Your task to perform on an android device: turn off location history Image 0: 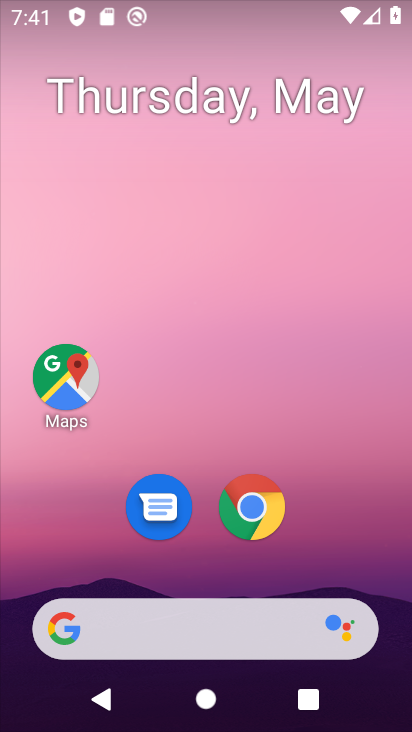
Step 0: drag from (286, 649) to (219, 382)
Your task to perform on an android device: turn off location history Image 1: 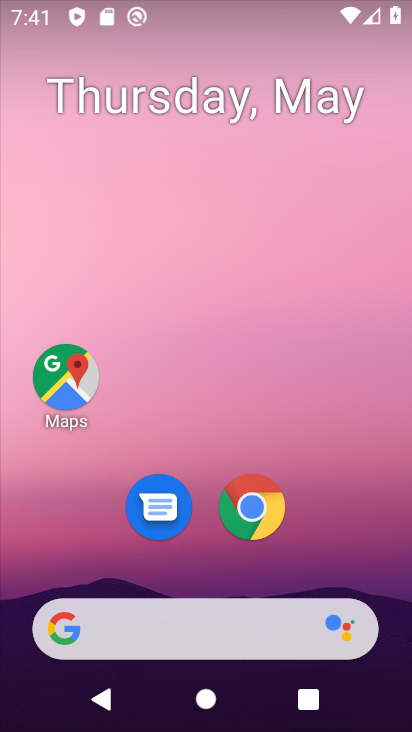
Step 1: drag from (216, 654) to (168, 267)
Your task to perform on an android device: turn off location history Image 2: 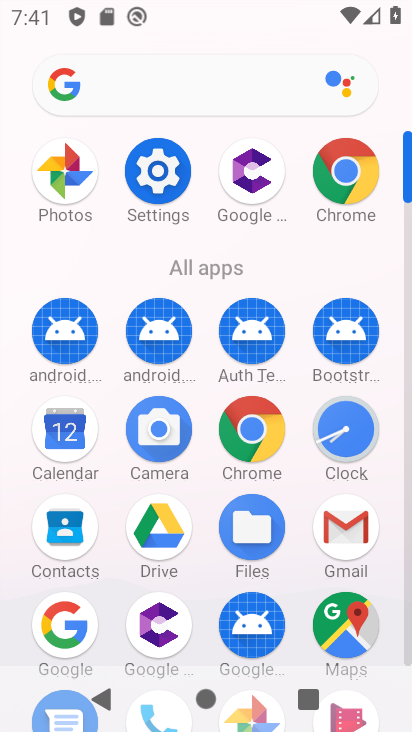
Step 2: click (152, 186)
Your task to perform on an android device: turn off location history Image 3: 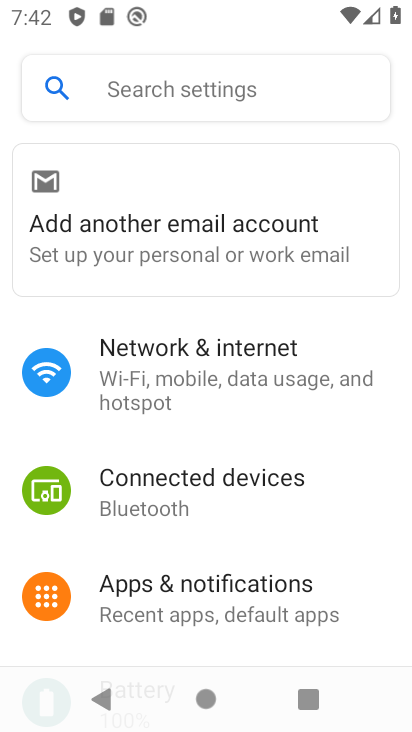
Step 3: click (163, 108)
Your task to perform on an android device: turn off location history Image 4: 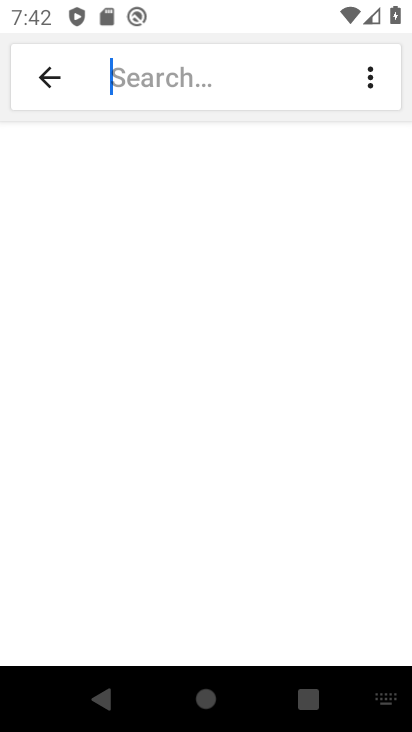
Step 4: click (381, 695)
Your task to perform on an android device: turn off location history Image 5: 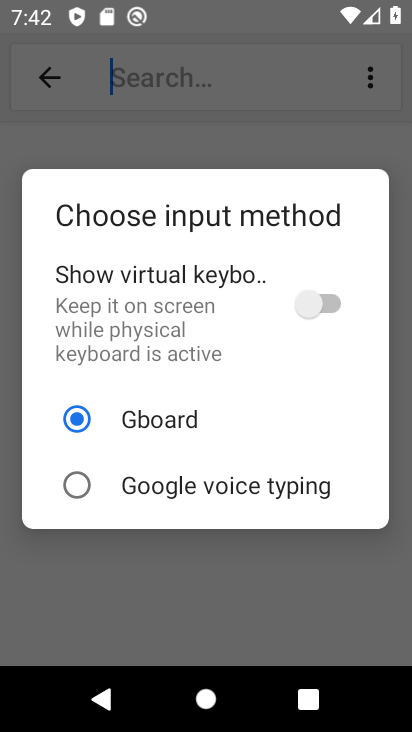
Step 5: click (318, 300)
Your task to perform on an android device: turn off location history Image 6: 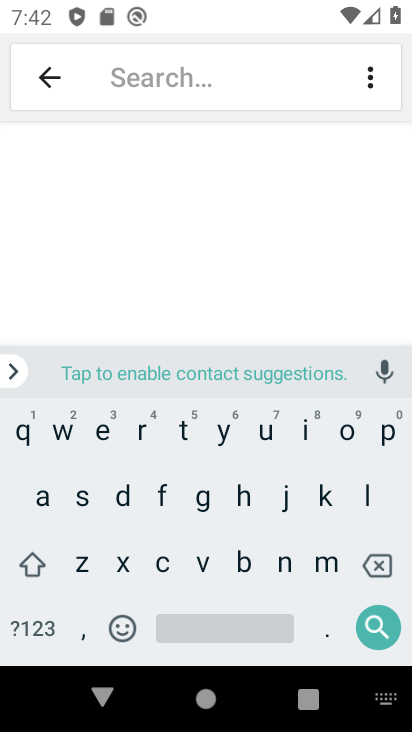
Step 6: click (366, 490)
Your task to perform on an android device: turn off location history Image 7: 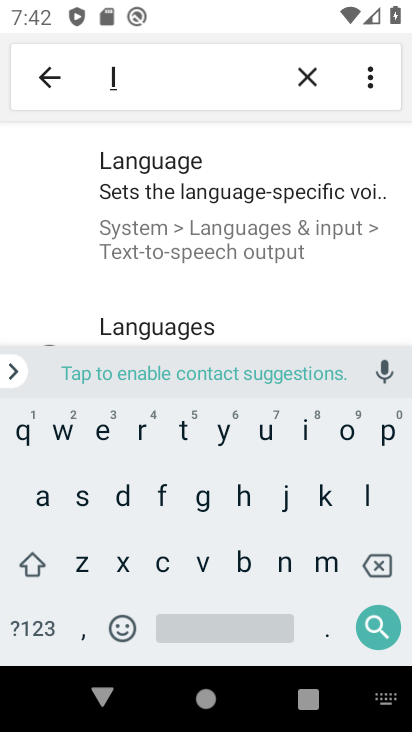
Step 7: click (337, 432)
Your task to perform on an android device: turn off location history Image 8: 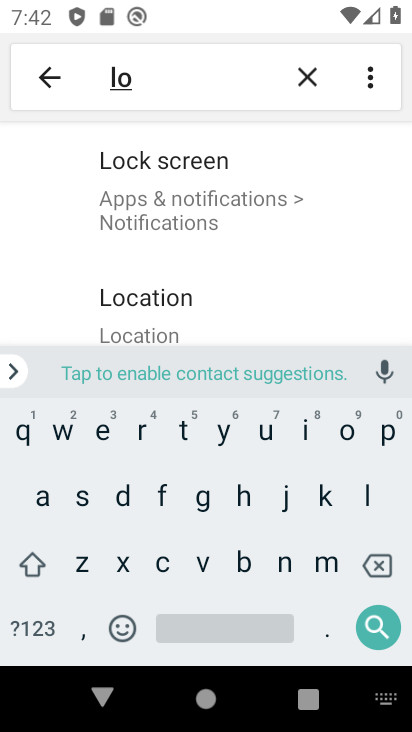
Step 8: click (136, 330)
Your task to perform on an android device: turn off location history Image 9: 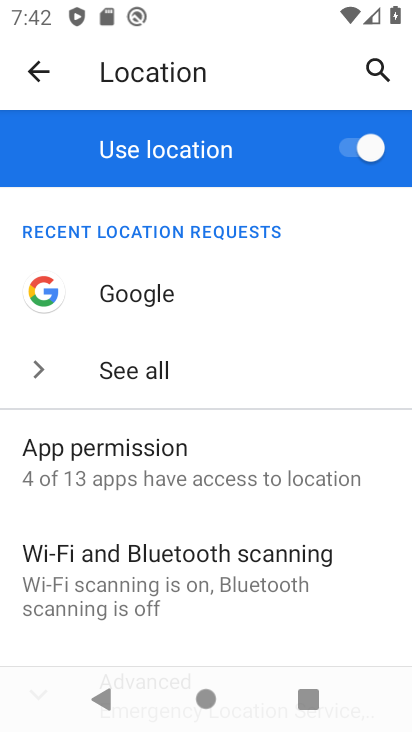
Step 9: drag from (113, 537) to (130, 336)
Your task to perform on an android device: turn off location history Image 10: 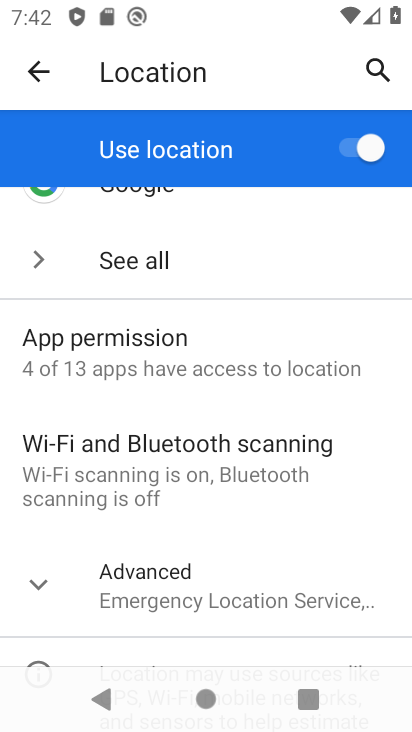
Step 10: click (55, 574)
Your task to perform on an android device: turn off location history Image 11: 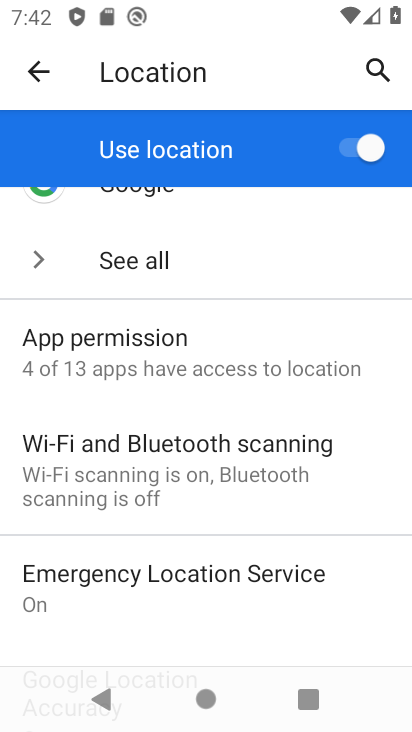
Step 11: drag from (134, 560) to (192, 354)
Your task to perform on an android device: turn off location history Image 12: 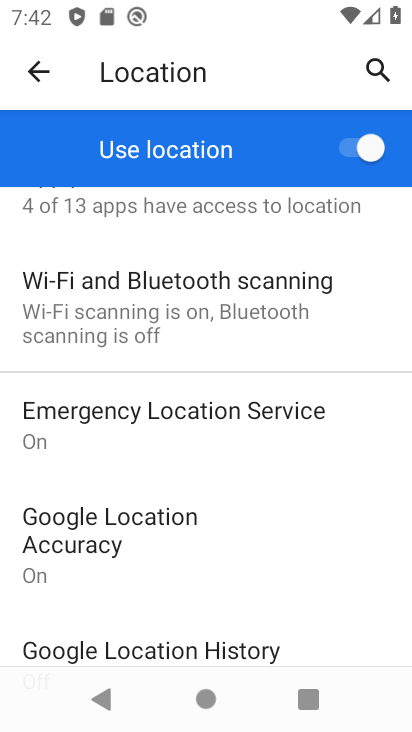
Step 12: click (155, 636)
Your task to perform on an android device: turn off location history Image 13: 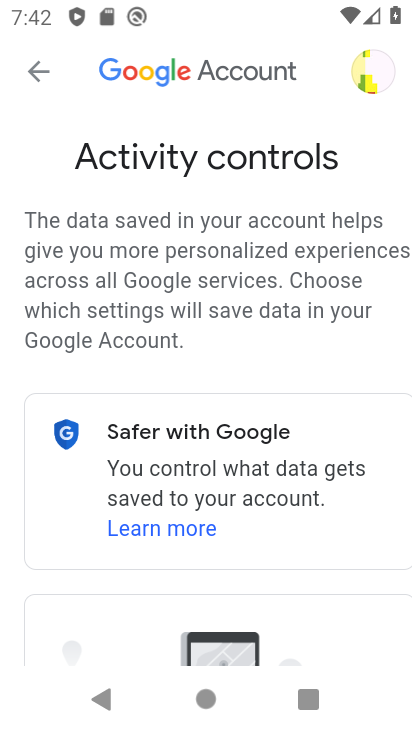
Step 13: task complete